Your task to perform on an android device: manage bookmarks in the chrome app Image 0: 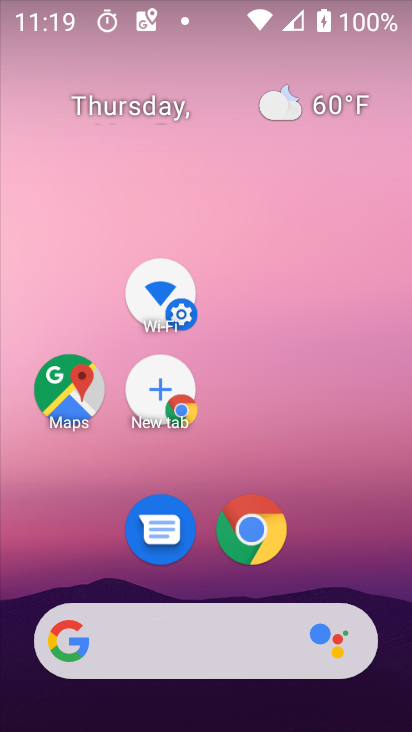
Step 0: drag from (364, 576) to (217, 133)
Your task to perform on an android device: manage bookmarks in the chrome app Image 1: 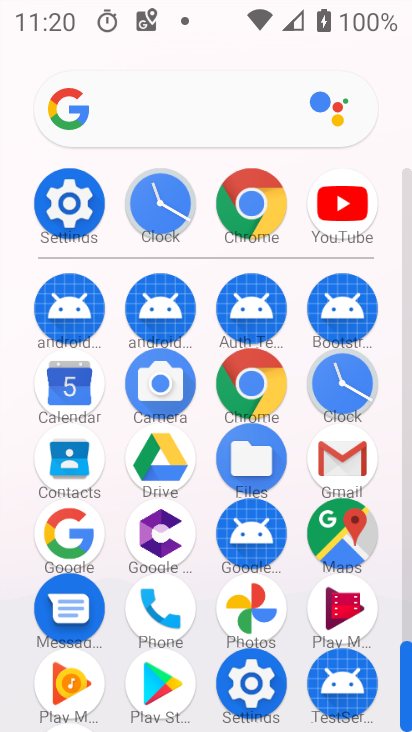
Step 1: click (254, 196)
Your task to perform on an android device: manage bookmarks in the chrome app Image 2: 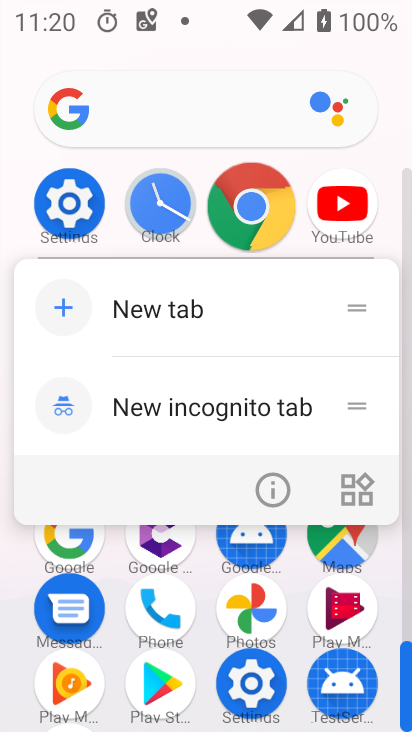
Step 2: click (254, 199)
Your task to perform on an android device: manage bookmarks in the chrome app Image 3: 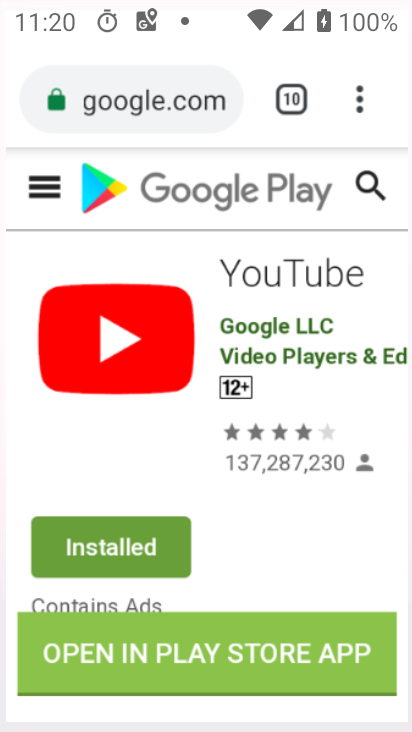
Step 3: click (262, 204)
Your task to perform on an android device: manage bookmarks in the chrome app Image 4: 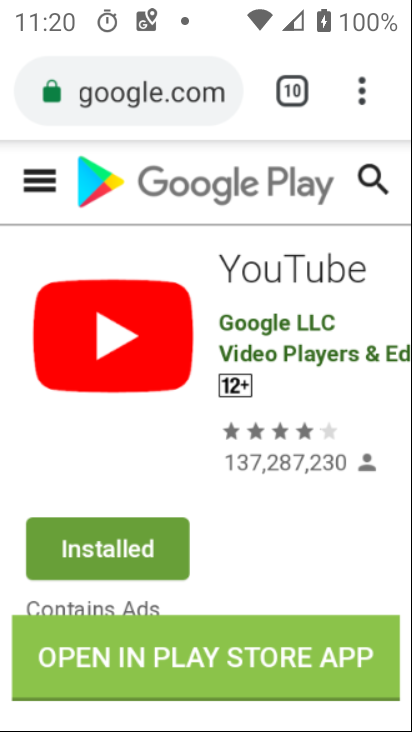
Step 4: click (262, 204)
Your task to perform on an android device: manage bookmarks in the chrome app Image 5: 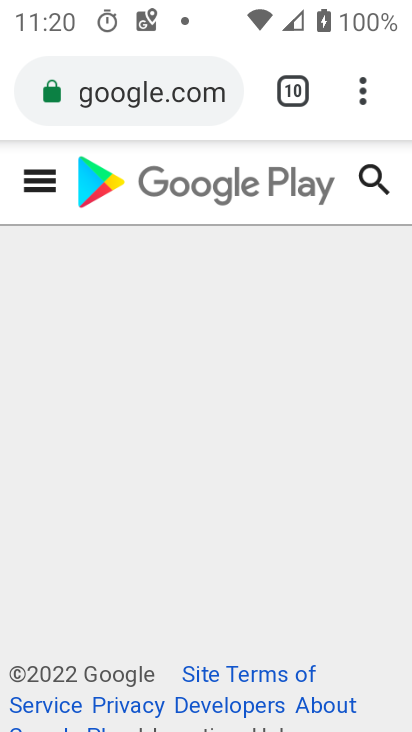
Step 5: click (359, 82)
Your task to perform on an android device: manage bookmarks in the chrome app Image 6: 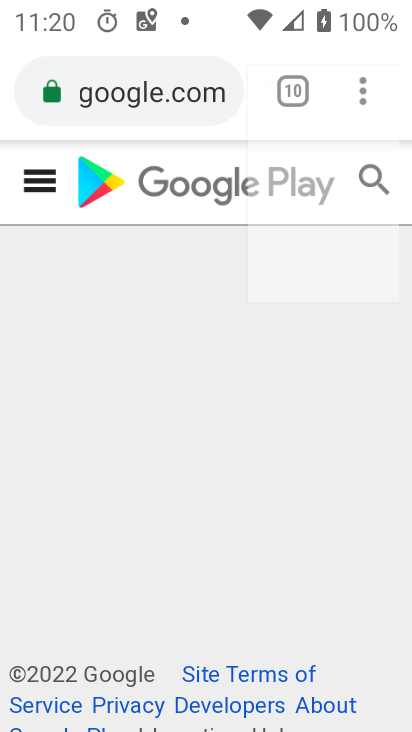
Step 6: click (359, 82)
Your task to perform on an android device: manage bookmarks in the chrome app Image 7: 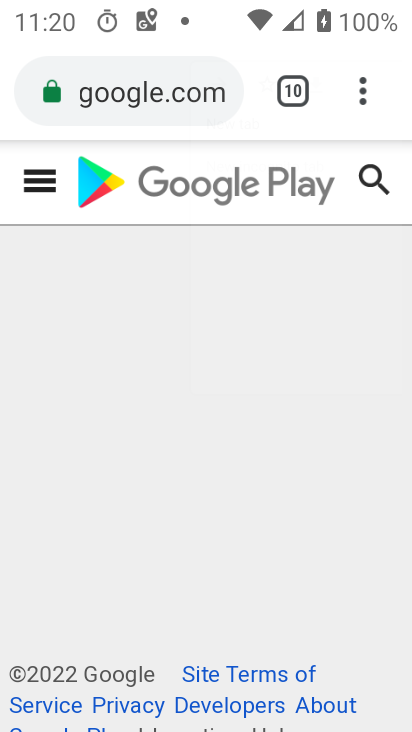
Step 7: click (359, 82)
Your task to perform on an android device: manage bookmarks in the chrome app Image 8: 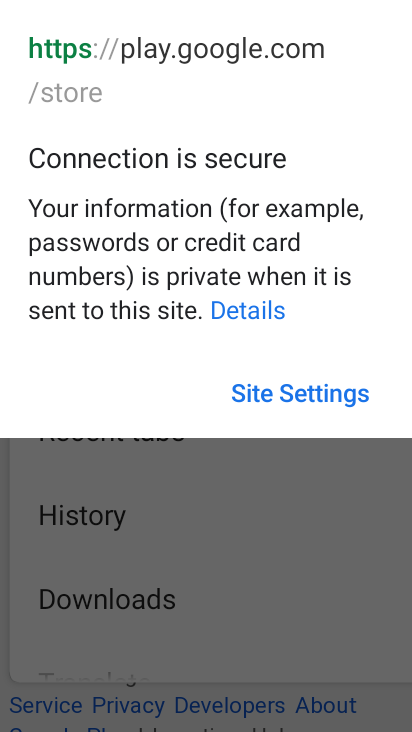
Step 8: click (275, 386)
Your task to perform on an android device: manage bookmarks in the chrome app Image 9: 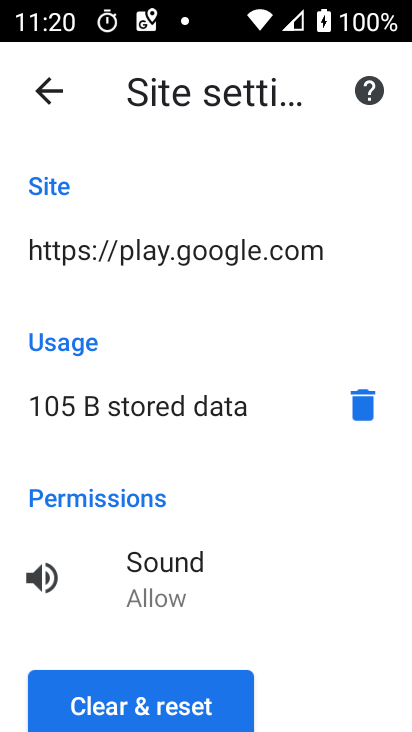
Step 9: click (50, 97)
Your task to perform on an android device: manage bookmarks in the chrome app Image 10: 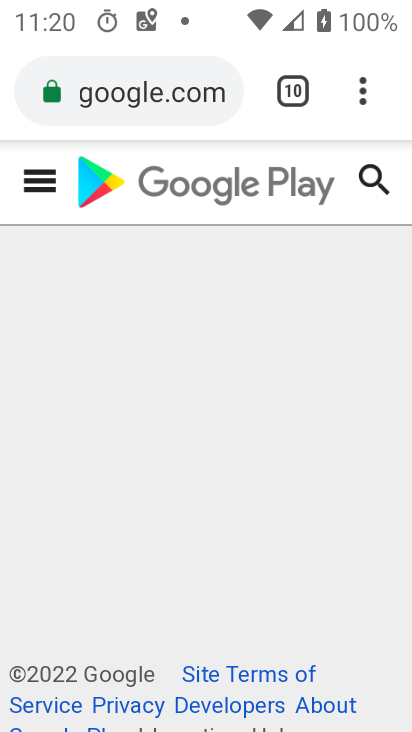
Step 10: click (355, 82)
Your task to perform on an android device: manage bookmarks in the chrome app Image 11: 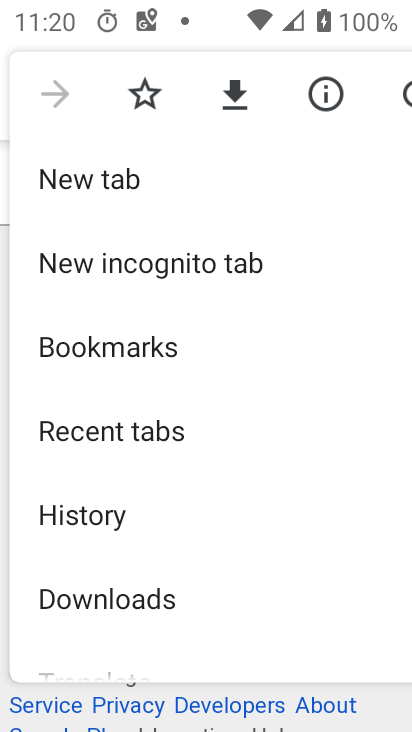
Step 11: click (111, 351)
Your task to perform on an android device: manage bookmarks in the chrome app Image 12: 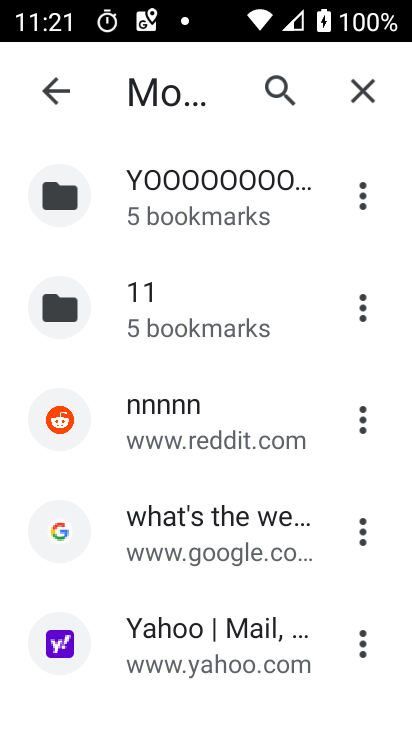
Step 12: click (41, 93)
Your task to perform on an android device: manage bookmarks in the chrome app Image 13: 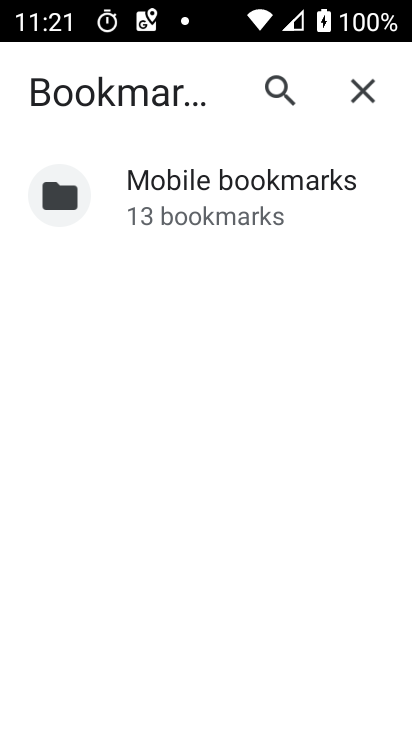
Step 13: click (356, 88)
Your task to perform on an android device: manage bookmarks in the chrome app Image 14: 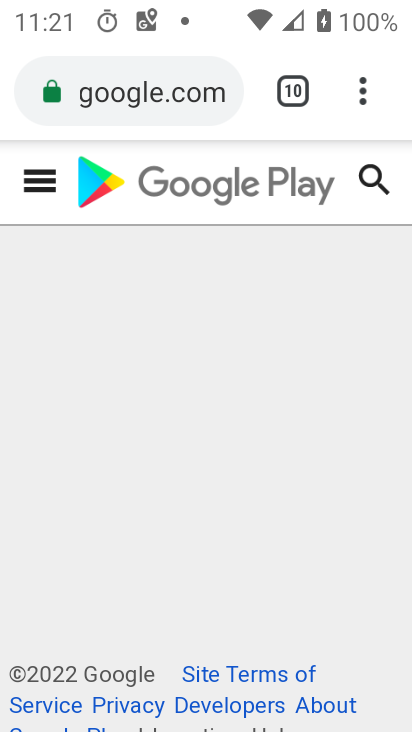
Step 14: drag from (353, 94) to (136, 355)
Your task to perform on an android device: manage bookmarks in the chrome app Image 15: 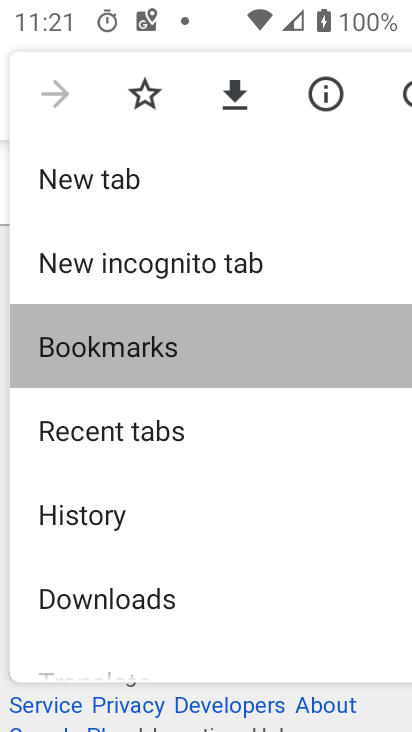
Step 15: click (136, 355)
Your task to perform on an android device: manage bookmarks in the chrome app Image 16: 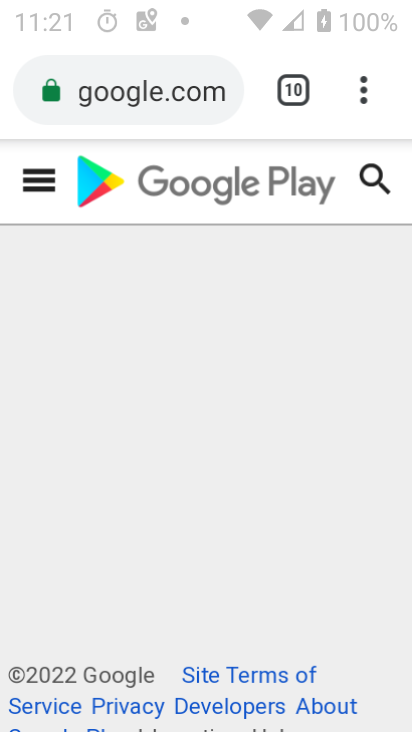
Step 16: click (135, 354)
Your task to perform on an android device: manage bookmarks in the chrome app Image 17: 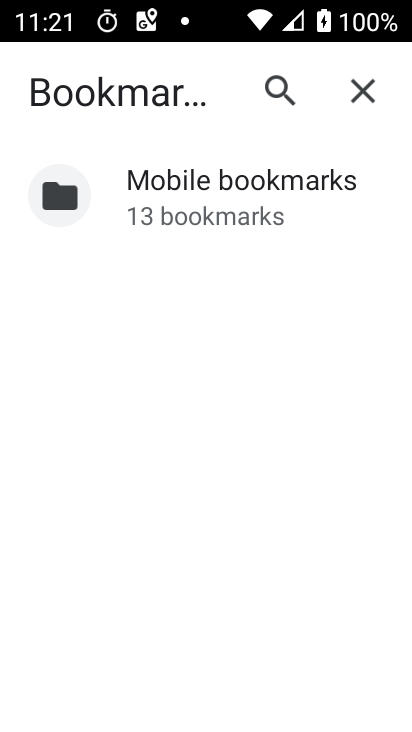
Step 17: click (285, 174)
Your task to perform on an android device: manage bookmarks in the chrome app Image 18: 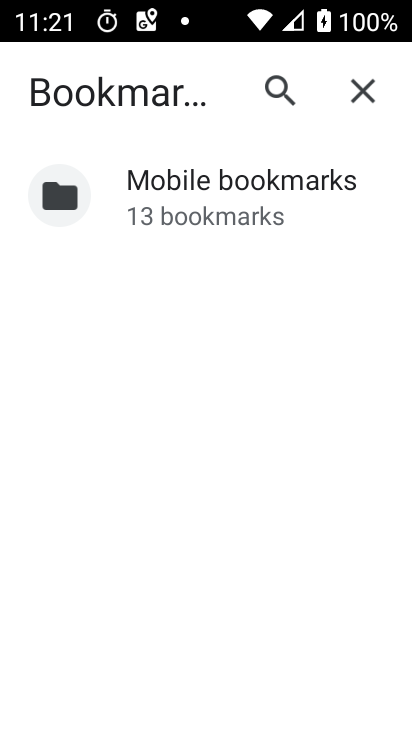
Step 18: click (180, 183)
Your task to perform on an android device: manage bookmarks in the chrome app Image 19: 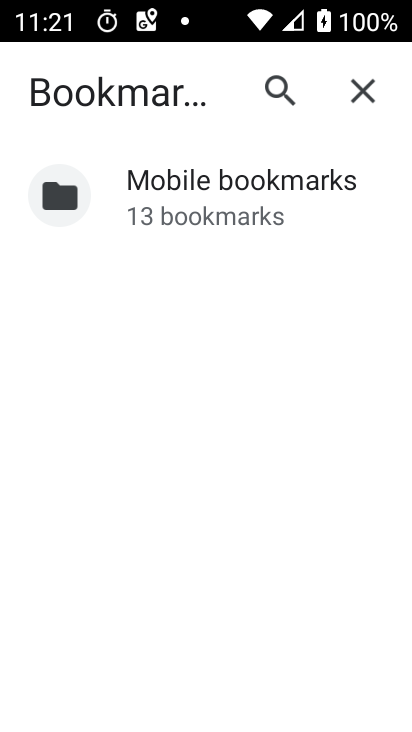
Step 19: click (180, 183)
Your task to perform on an android device: manage bookmarks in the chrome app Image 20: 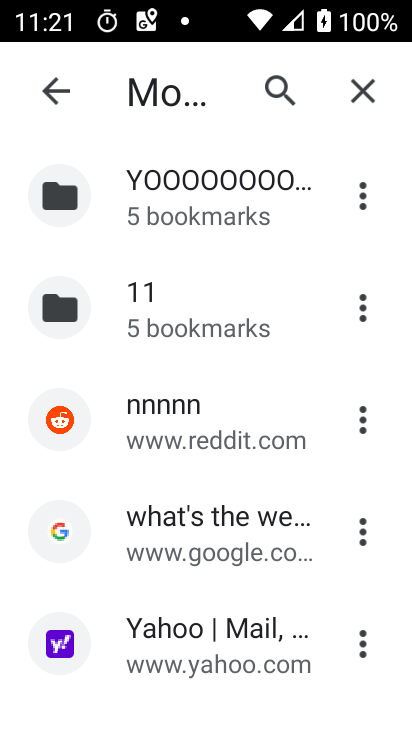
Step 20: click (194, 195)
Your task to perform on an android device: manage bookmarks in the chrome app Image 21: 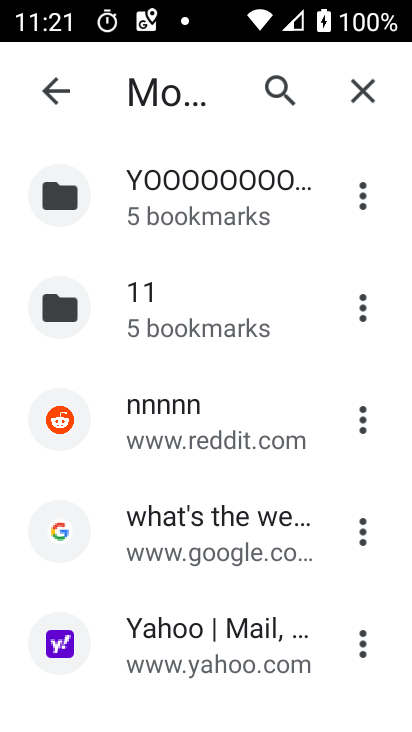
Step 21: click (352, 192)
Your task to perform on an android device: manage bookmarks in the chrome app Image 22: 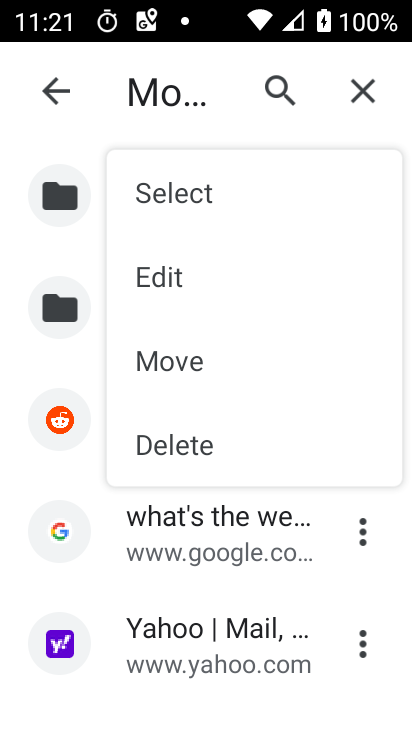
Step 22: click (360, 191)
Your task to perform on an android device: manage bookmarks in the chrome app Image 23: 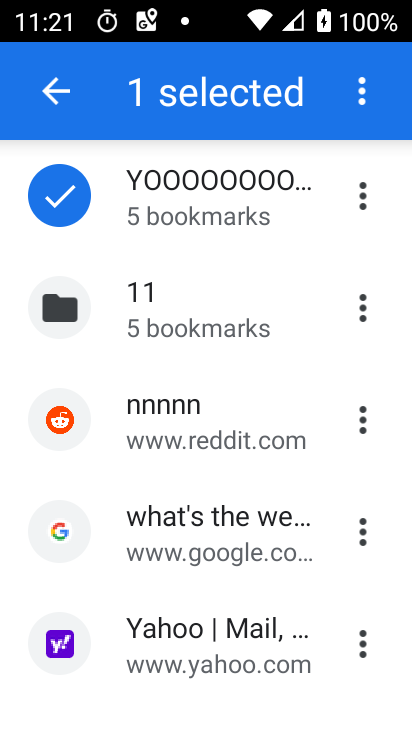
Step 23: click (364, 96)
Your task to perform on an android device: manage bookmarks in the chrome app Image 24: 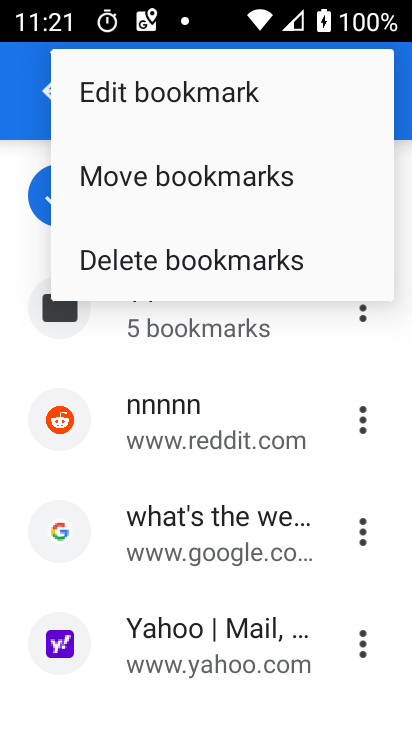
Step 24: click (178, 93)
Your task to perform on an android device: manage bookmarks in the chrome app Image 25: 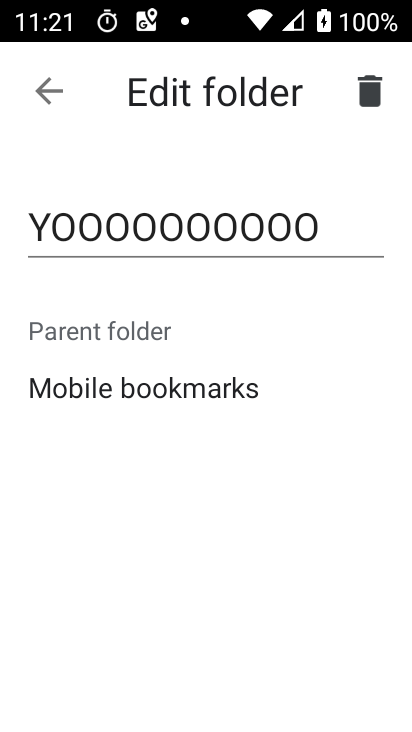
Step 25: click (360, 95)
Your task to perform on an android device: manage bookmarks in the chrome app Image 26: 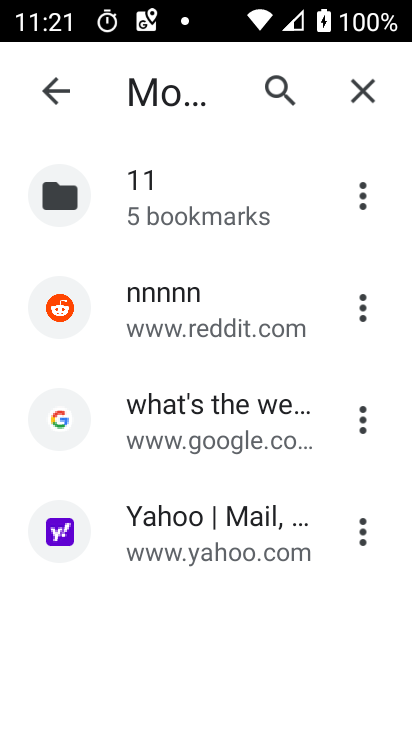
Step 26: task complete